Your task to perform on an android device: choose inbox layout in the gmail app Image 0: 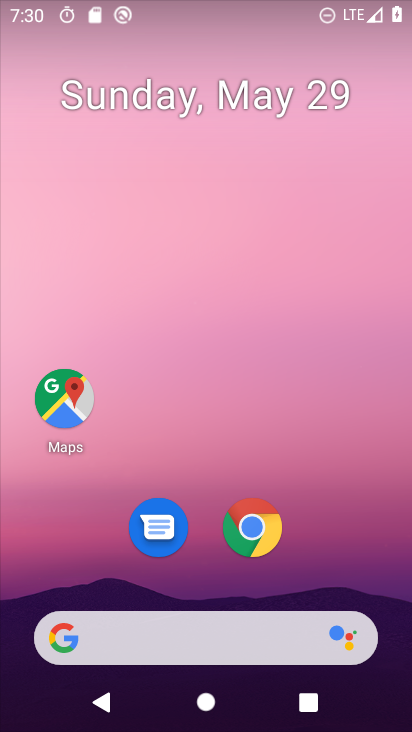
Step 0: drag from (382, 601) to (311, 106)
Your task to perform on an android device: choose inbox layout in the gmail app Image 1: 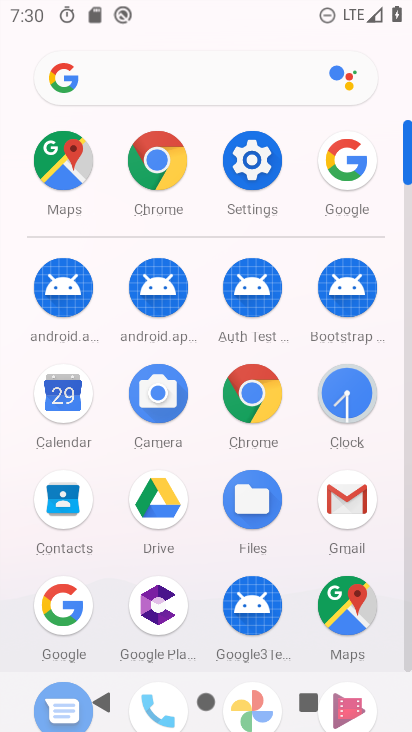
Step 1: click (358, 508)
Your task to perform on an android device: choose inbox layout in the gmail app Image 2: 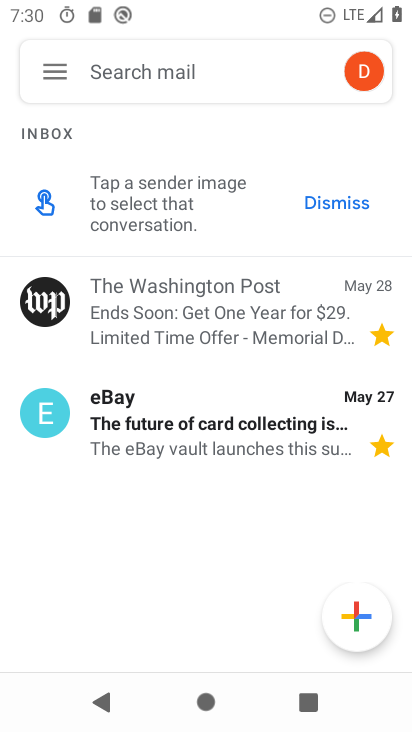
Step 2: click (69, 88)
Your task to perform on an android device: choose inbox layout in the gmail app Image 3: 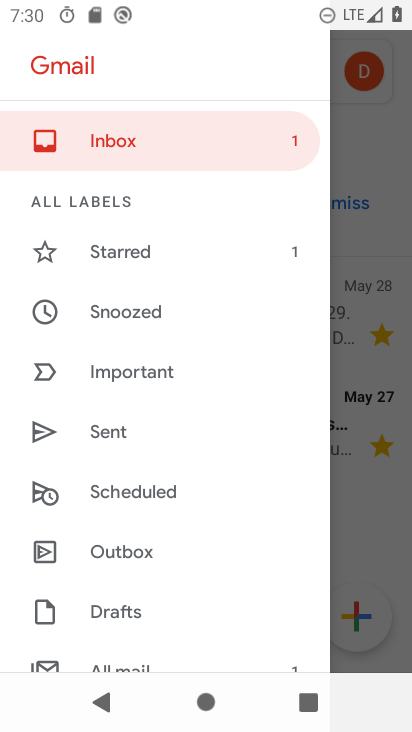
Step 3: click (407, 238)
Your task to perform on an android device: choose inbox layout in the gmail app Image 4: 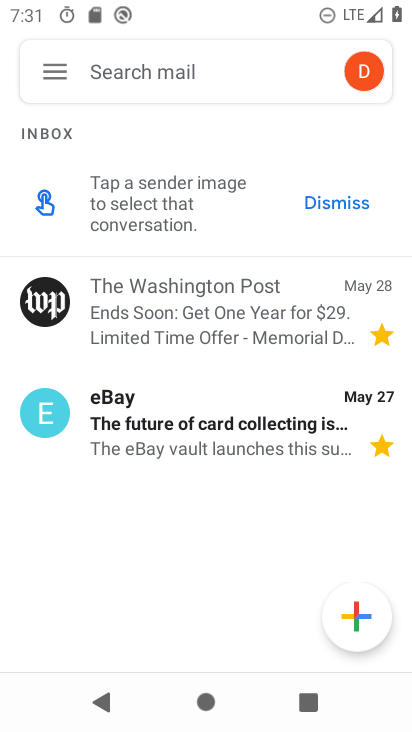
Step 4: task complete